Your task to perform on an android device: Open Android settings Image 0: 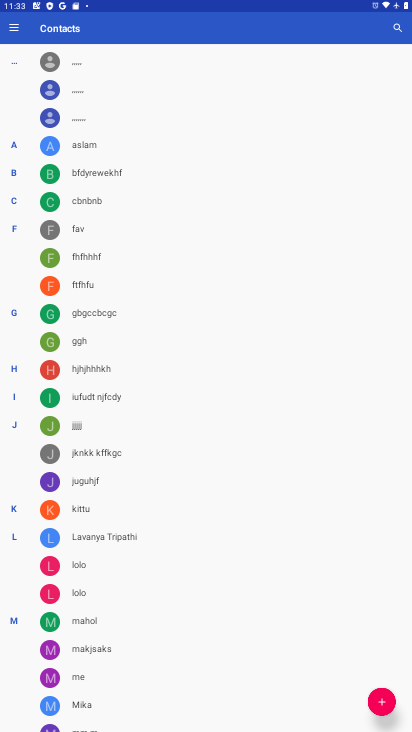
Step 0: press home button
Your task to perform on an android device: Open Android settings Image 1: 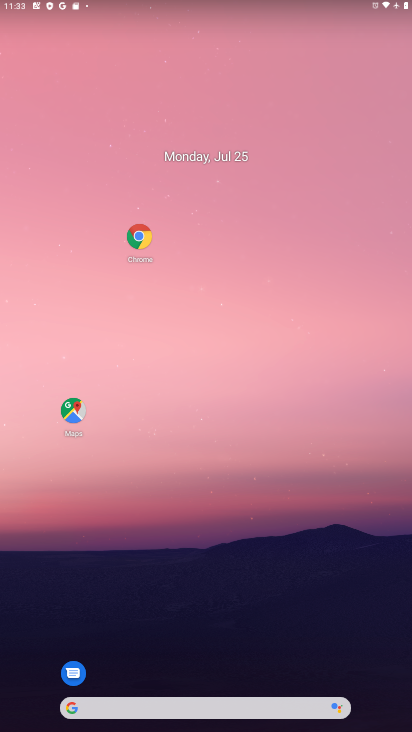
Step 1: drag from (204, 656) to (193, 95)
Your task to perform on an android device: Open Android settings Image 2: 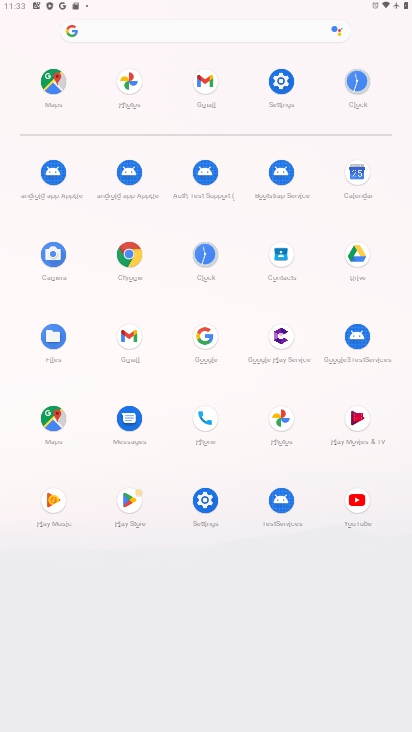
Step 2: click (267, 87)
Your task to perform on an android device: Open Android settings Image 3: 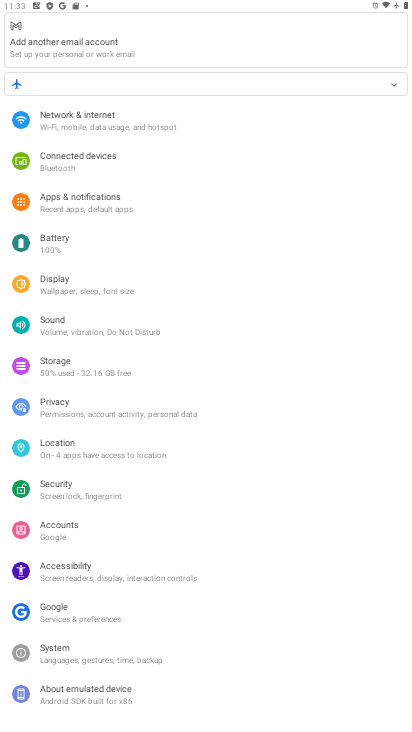
Step 3: task complete